Your task to perform on an android device: Open wifi settings Image 0: 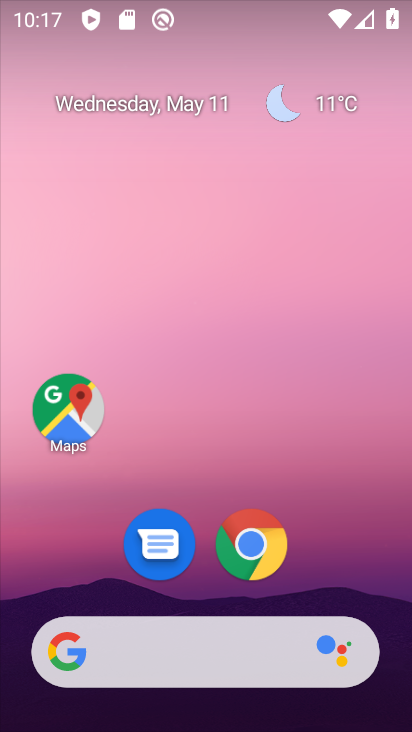
Step 0: drag from (212, 11) to (206, 518)
Your task to perform on an android device: Open wifi settings Image 1: 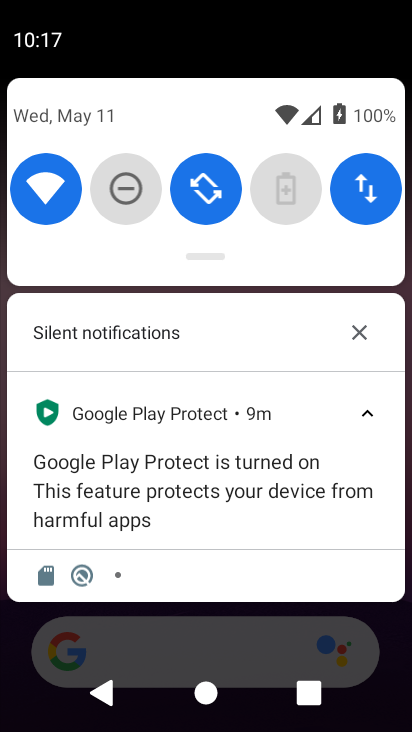
Step 1: click (40, 195)
Your task to perform on an android device: Open wifi settings Image 2: 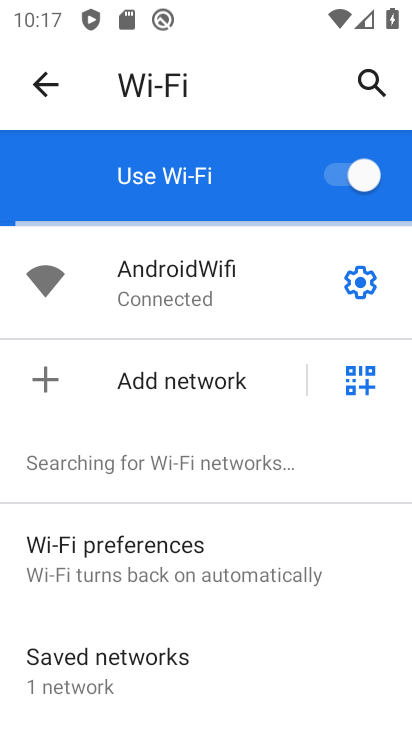
Step 2: task complete